Your task to perform on an android device: open a bookmark in the chrome app Image 0: 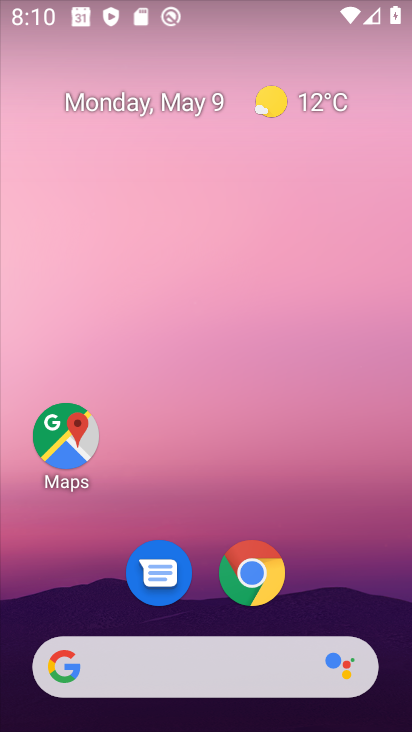
Step 0: click (267, 583)
Your task to perform on an android device: open a bookmark in the chrome app Image 1: 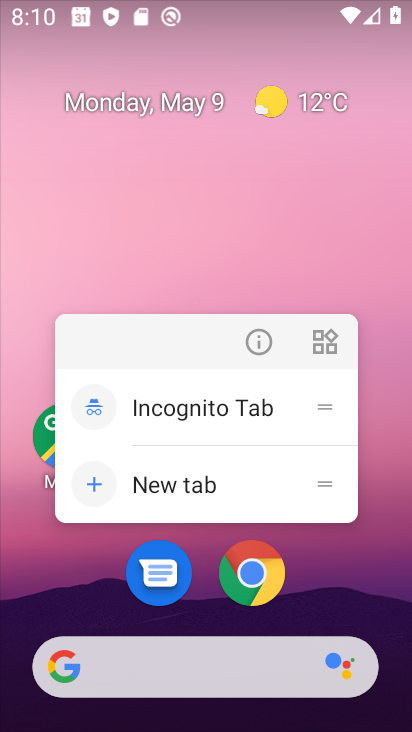
Step 1: click (265, 582)
Your task to perform on an android device: open a bookmark in the chrome app Image 2: 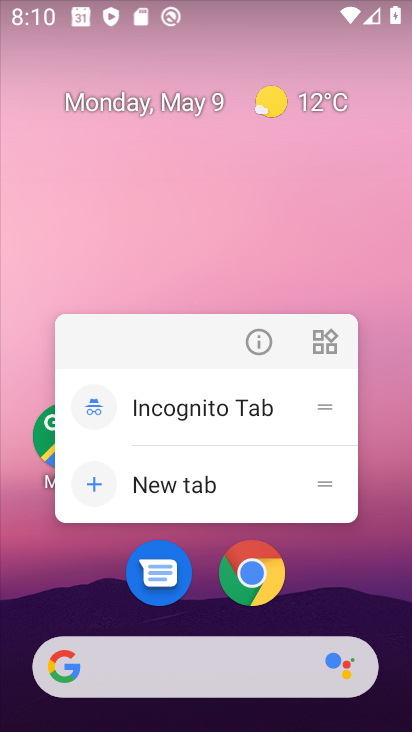
Step 2: click (251, 560)
Your task to perform on an android device: open a bookmark in the chrome app Image 3: 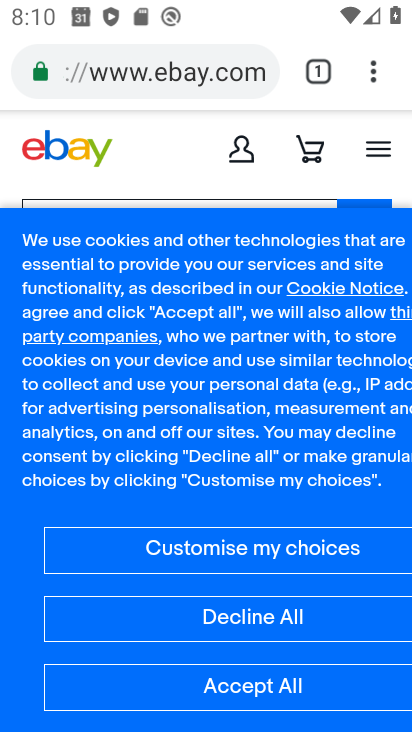
Step 3: click (383, 75)
Your task to perform on an android device: open a bookmark in the chrome app Image 4: 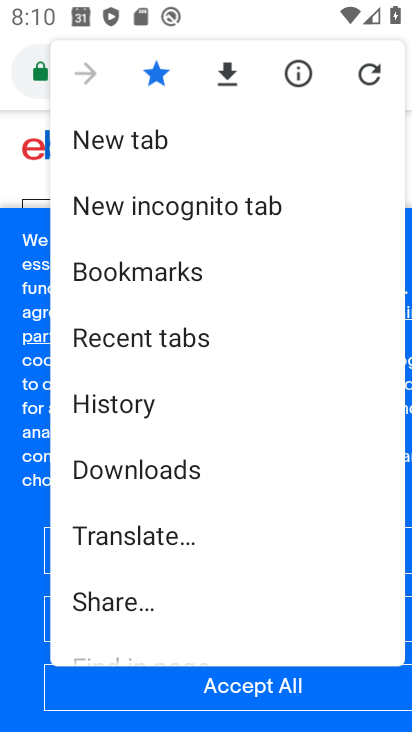
Step 4: drag from (320, 407) to (339, 160)
Your task to perform on an android device: open a bookmark in the chrome app Image 5: 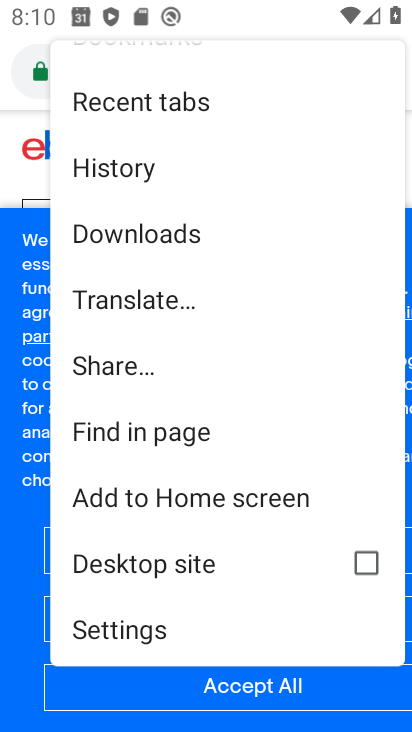
Step 5: drag from (299, 382) to (294, 180)
Your task to perform on an android device: open a bookmark in the chrome app Image 6: 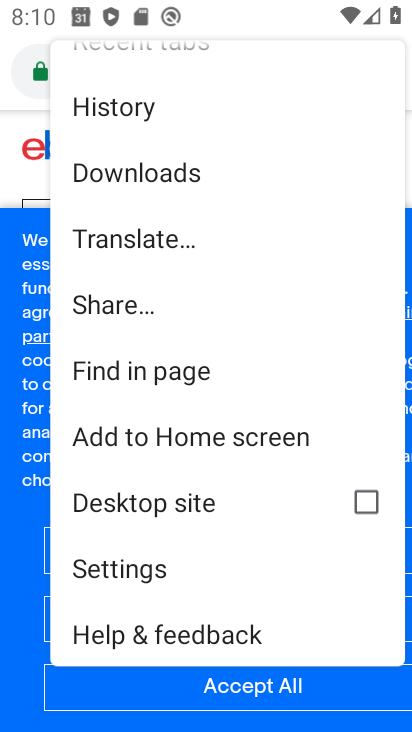
Step 6: drag from (196, 227) to (179, 442)
Your task to perform on an android device: open a bookmark in the chrome app Image 7: 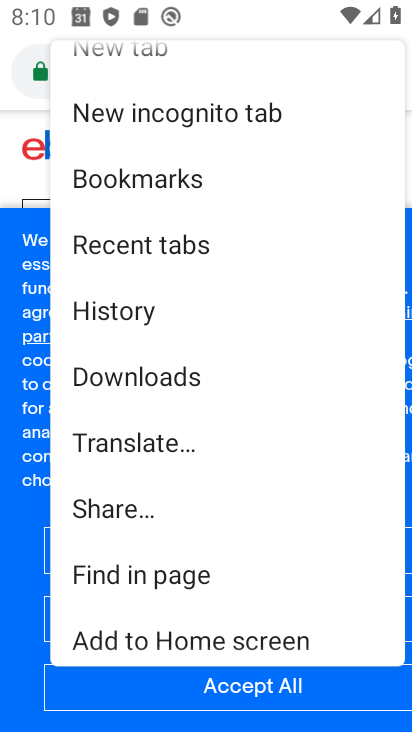
Step 7: click (178, 185)
Your task to perform on an android device: open a bookmark in the chrome app Image 8: 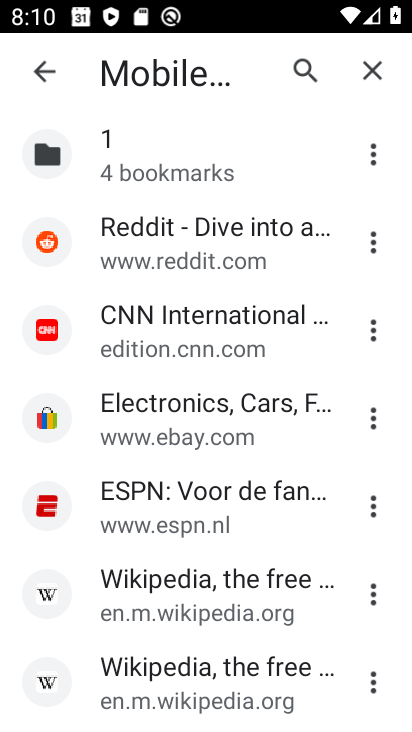
Step 8: drag from (192, 589) to (260, 214)
Your task to perform on an android device: open a bookmark in the chrome app Image 9: 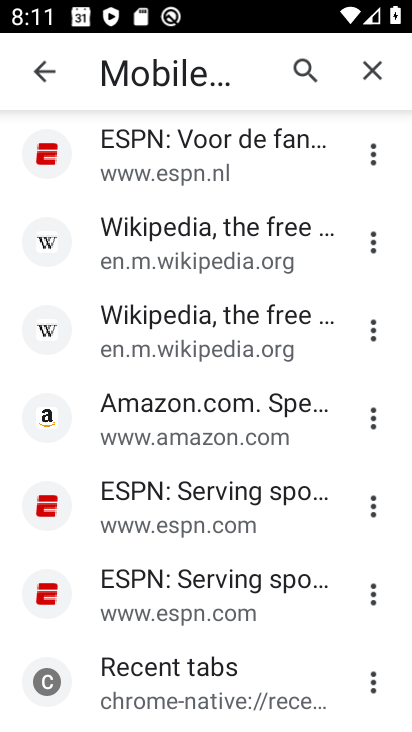
Step 9: click (215, 431)
Your task to perform on an android device: open a bookmark in the chrome app Image 10: 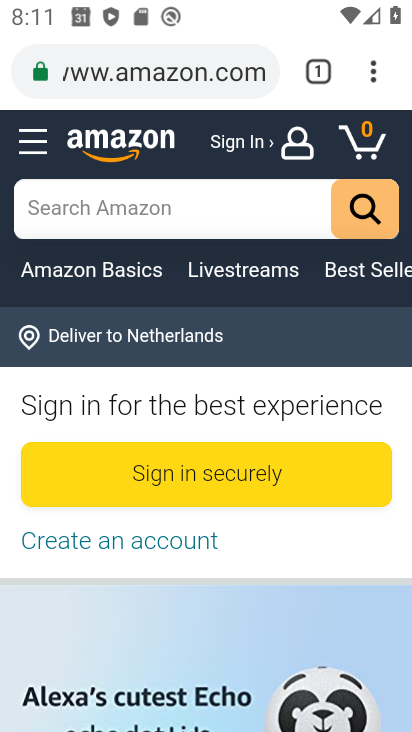
Step 10: task complete